Your task to perform on an android device: turn off location Image 0: 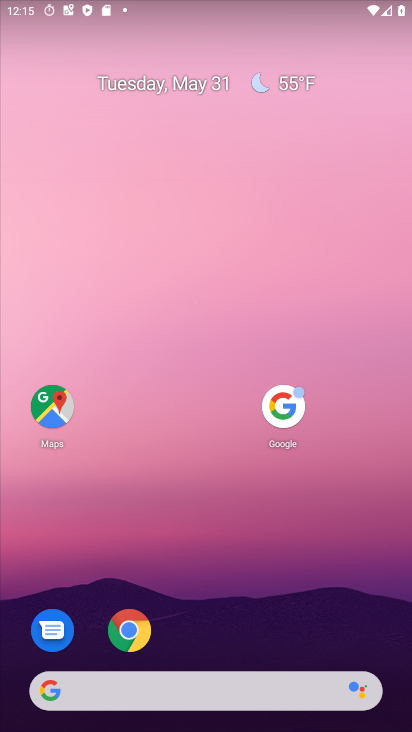
Step 0: drag from (261, 698) to (278, 0)
Your task to perform on an android device: turn off location Image 1: 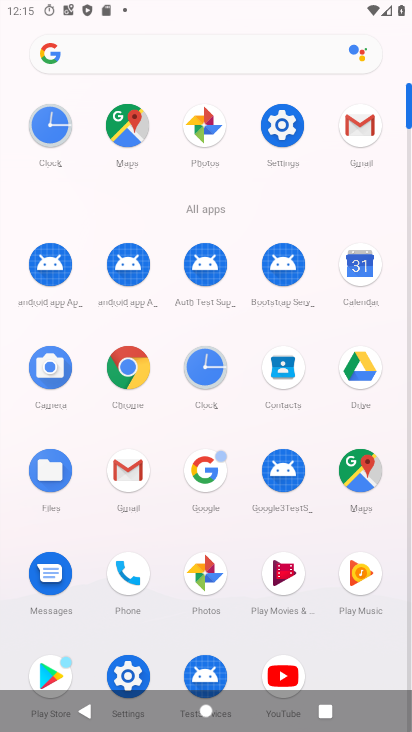
Step 1: click (289, 122)
Your task to perform on an android device: turn off location Image 2: 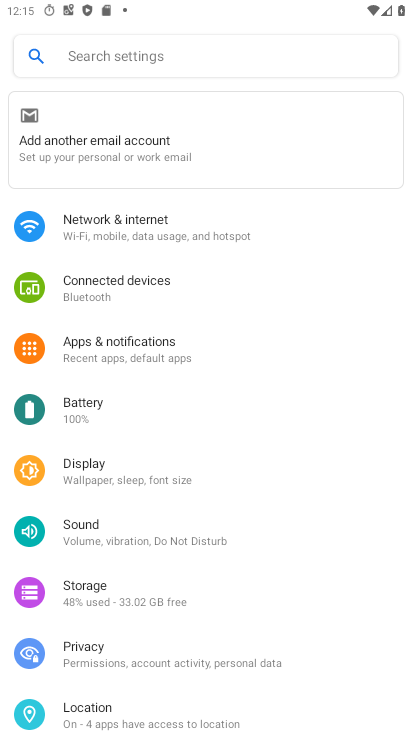
Step 2: click (96, 706)
Your task to perform on an android device: turn off location Image 3: 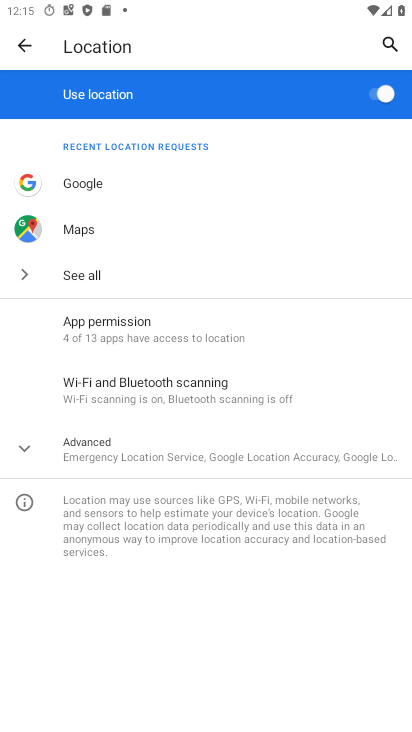
Step 3: click (371, 96)
Your task to perform on an android device: turn off location Image 4: 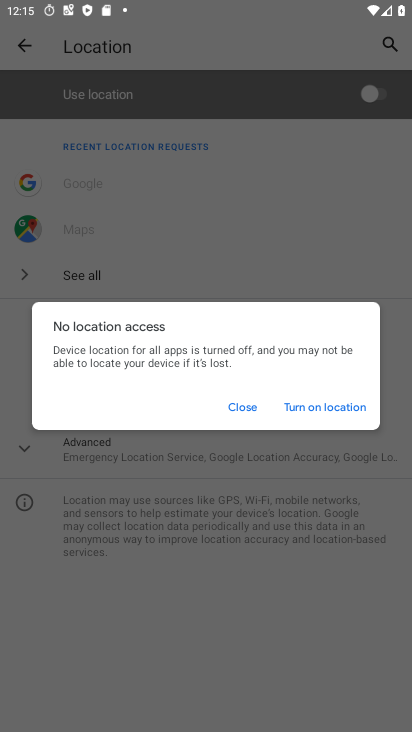
Step 4: click (254, 409)
Your task to perform on an android device: turn off location Image 5: 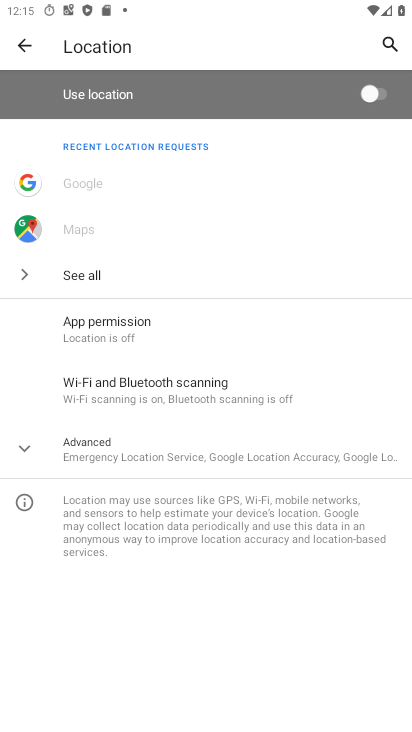
Step 5: task complete